Your task to perform on an android device: Open calendar and show me the first week of next month Image 0: 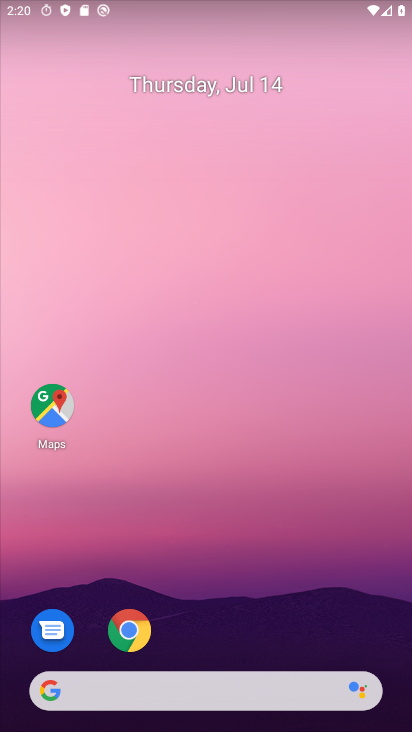
Step 0: drag from (314, 600) to (358, 159)
Your task to perform on an android device: Open calendar and show me the first week of next month Image 1: 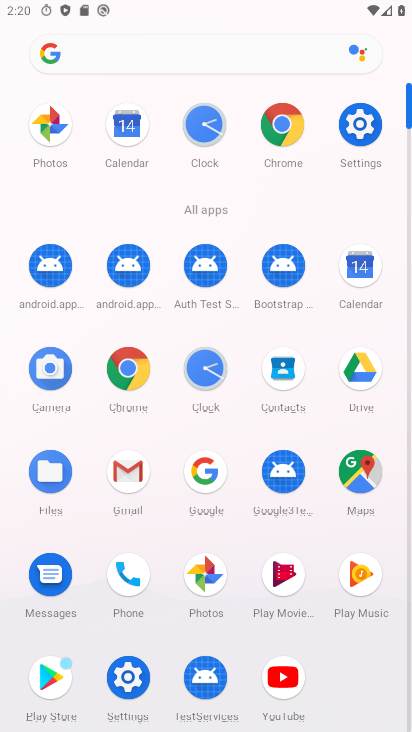
Step 1: click (361, 262)
Your task to perform on an android device: Open calendar and show me the first week of next month Image 2: 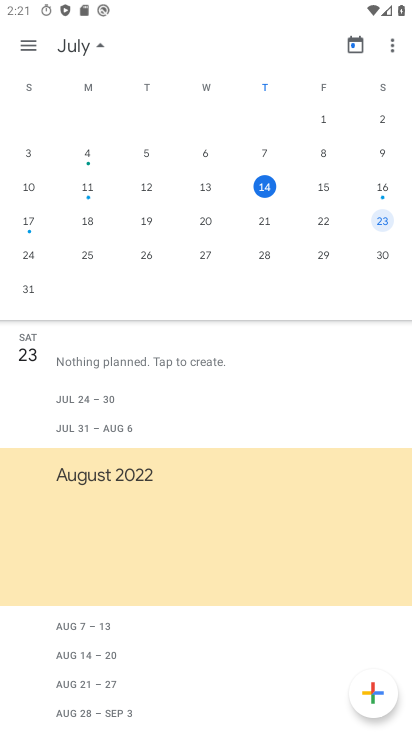
Step 2: drag from (399, 172) to (120, 143)
Your task to perform on an android device: Open calendar and show me the first week of next month Image 3: 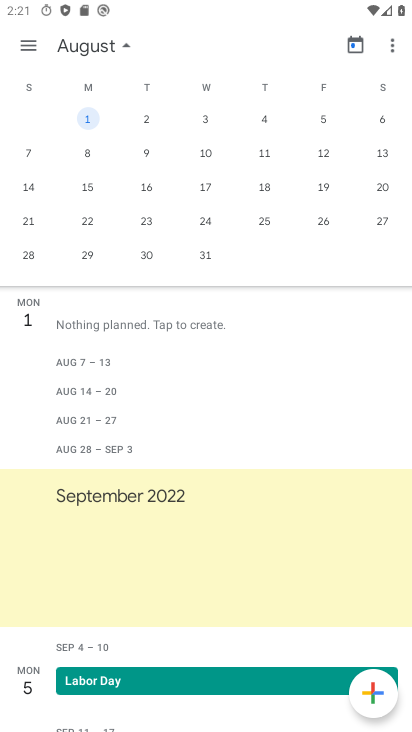
Step 3: click (88, 114)
Your task to perform on an android device: Open calendar and show me the first week of next month Image 4: 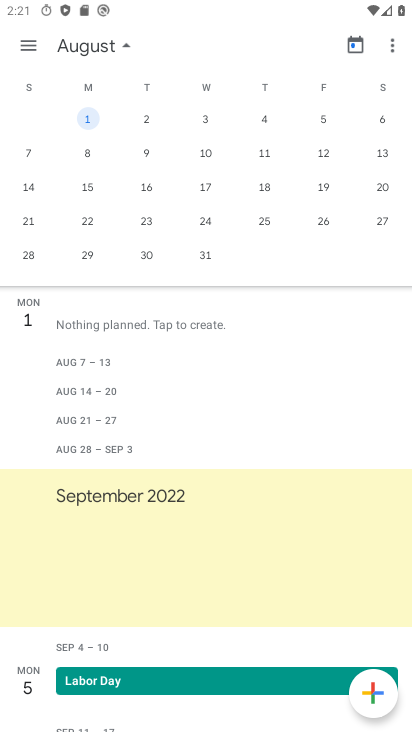
Step 4: task complete